Your task to perform on an android device: turn notification dots off Image 0: 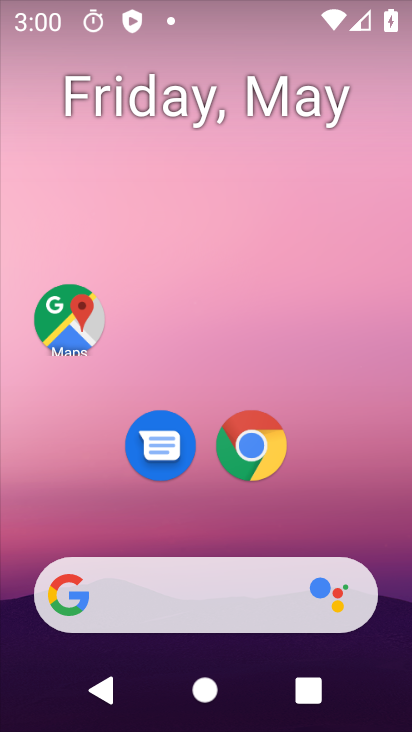
Step 0: click (410, 396)
Your task to perform on an android device: turn notification dots off Image 1: 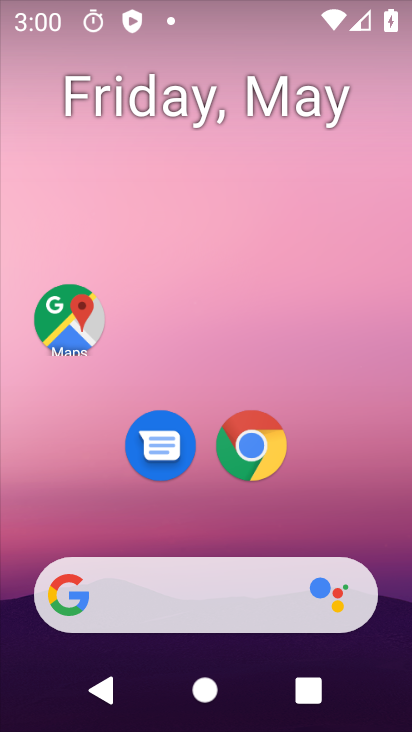
Step 1: drag from (274, 598) to (128, 173)
Your task to perform on an android device: turn notification dots off Image 2: 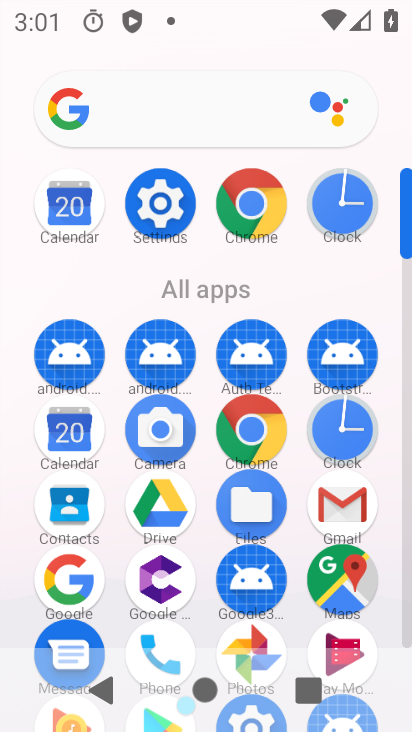
Step 2: click (174, 219)
Your task to perform on an android device: turn notification dots off Image 3: 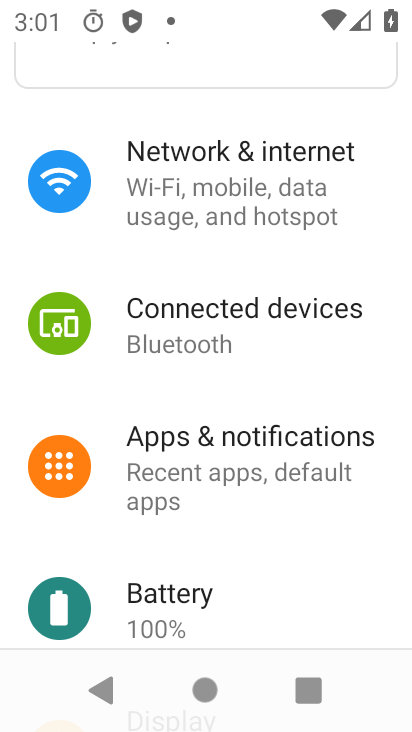
Step 3: click (256, 483)
Your task to perform on an android device: turn notification dots off Image 4: 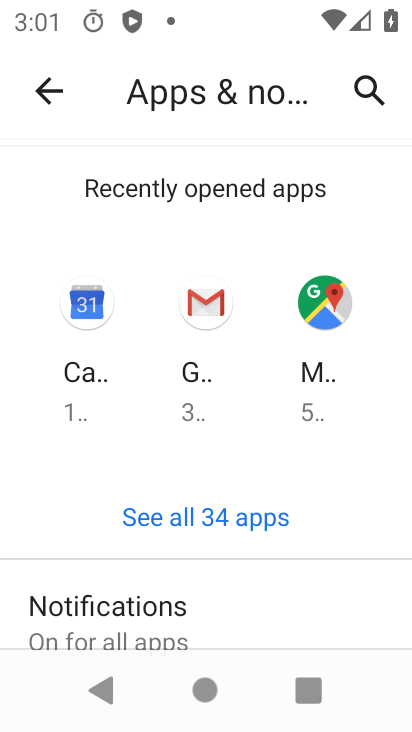
Step 4: drag from (196, 587) to (106, 294)
Your task to perform on an android device: turn notification dots off Image 5: 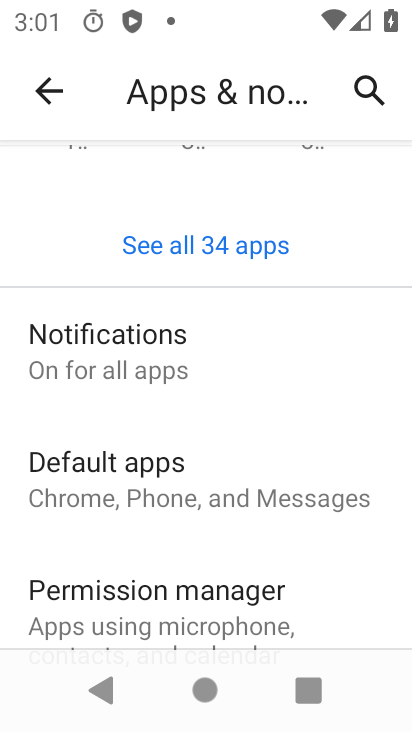
Step 5: click (131, 348)
Your task to perform on an android device: turn notification dots off Image 6: 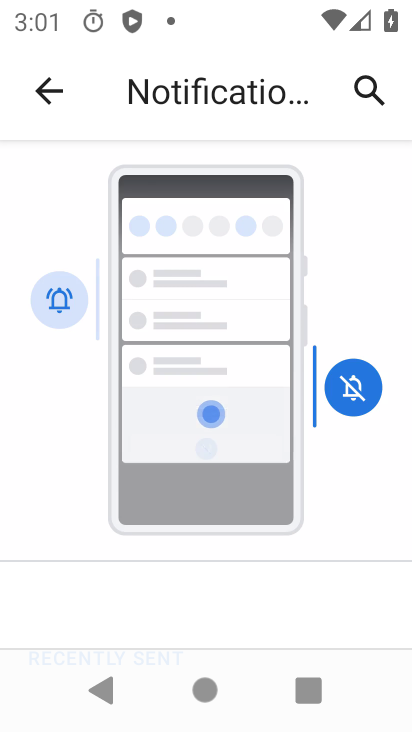
Step 6: drag from (202, 566) to (95, 78)
Your task to perform on an android device: turn notification dots off Image 7: 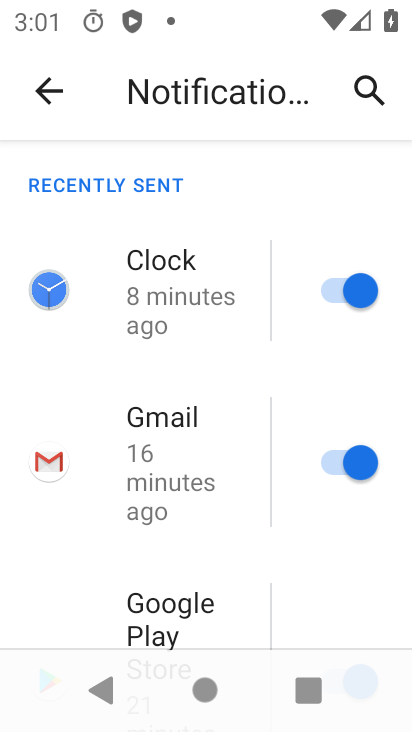
Step 7: drag from (263, 547) to (128, 99)
Your task to perform on an android device: turn notification dots off Image 8: 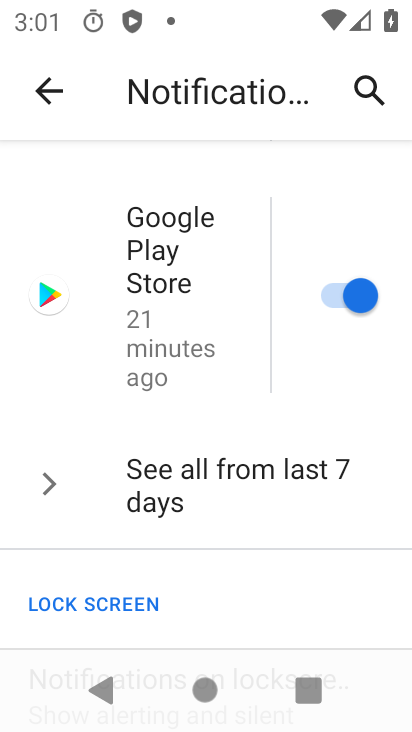
Step 8: drag from (243, 563) to (118, 157)
Your task to perform on an android device: turn notification dots off Image 9: 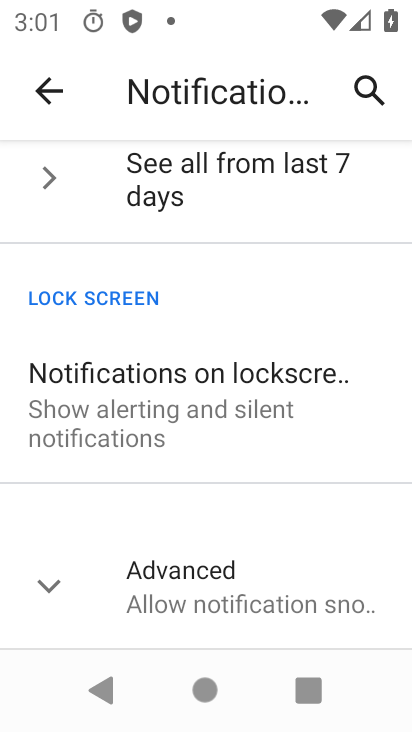
Step 9: click (76, 601)
Your task to perform on an android device: turn notification dots off Image 10: 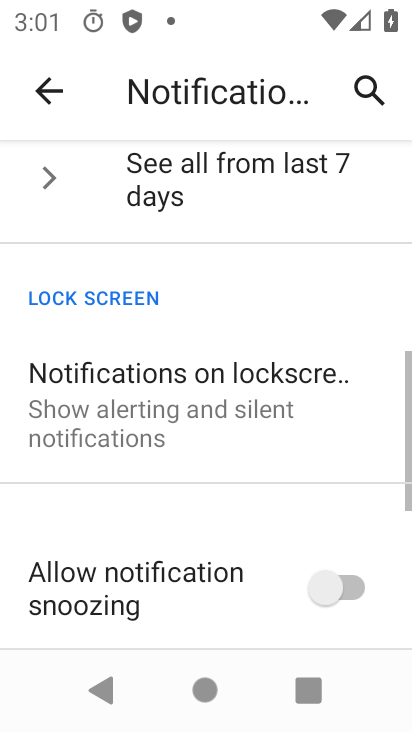
Step 10: drag from (71, 556) to (53, 238)
Your task to perform on an android device: turn notification dots off Image 11: 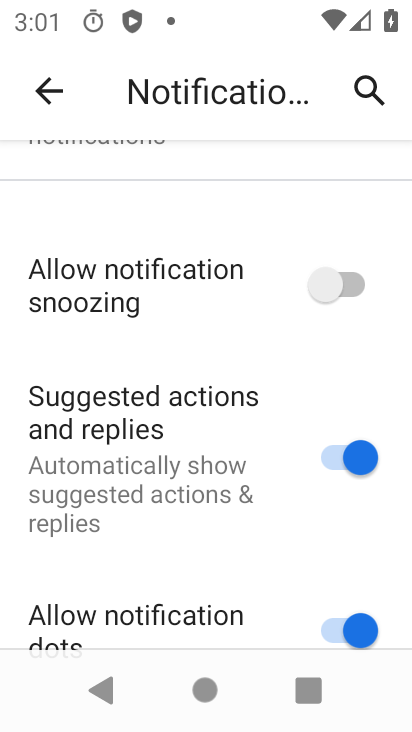
Step 11: drag from (165, 454) to (228, 107)
Your task to perform on an android device: turn notification dots off Image 12: 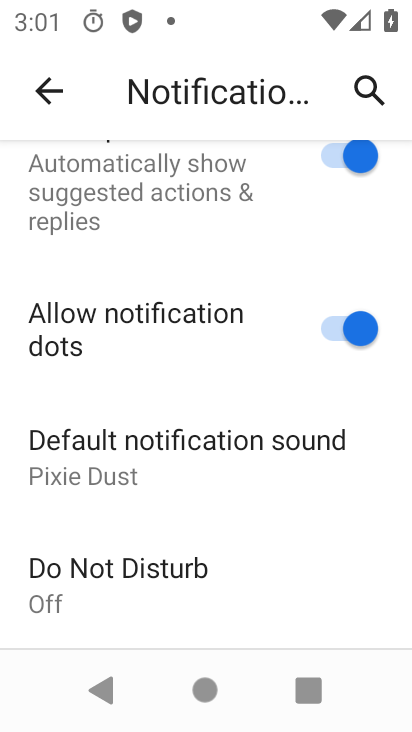
Step 12: click (331, 336)
Your task to perform on an android device: turn notification dots off Image 13: 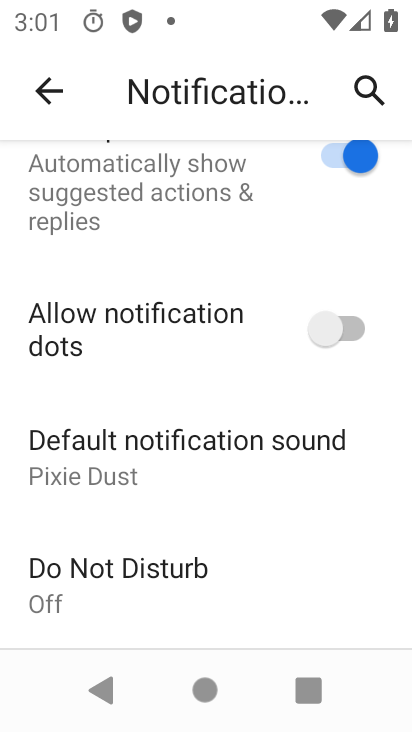
Step 13: task complete